Your task to perform on an android device: change the clock style Image 0: 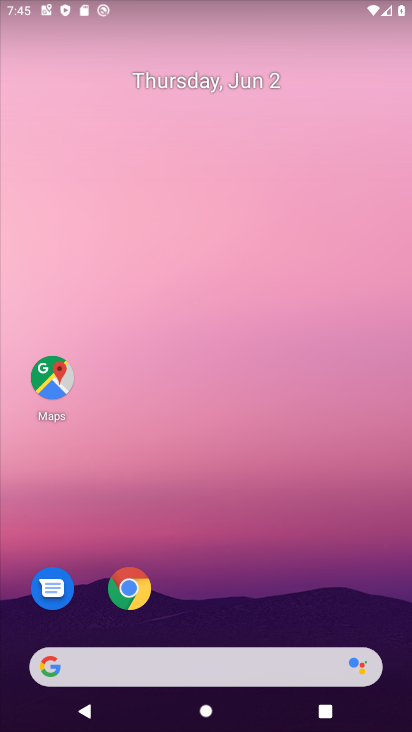
Step 0: click (197, 185)
Your task to perform on an android device: change the clock style Image 1: 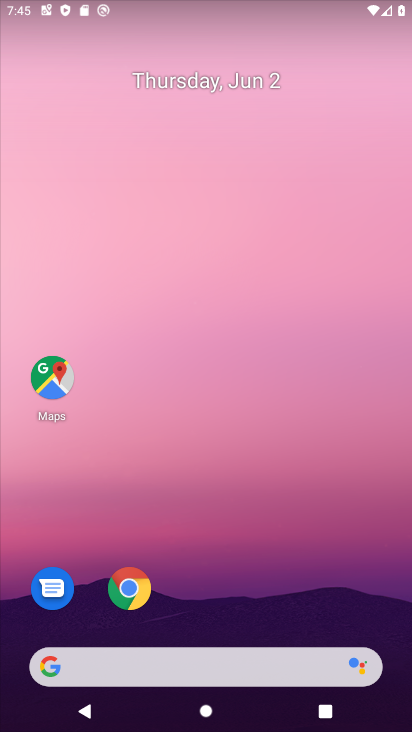
Step 1: drag from (218, 667) to (229, 248)
Your task to perform on an android device: change the clock style Image 2: 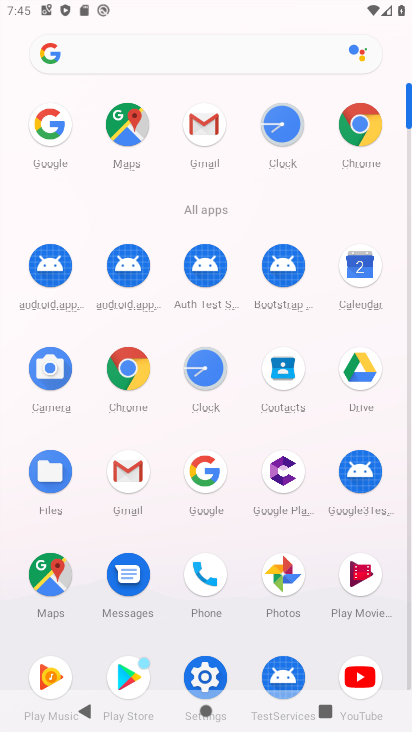
Step 2: click (217, 368)
Your task to perform on an android device: change the clock style Image 3: 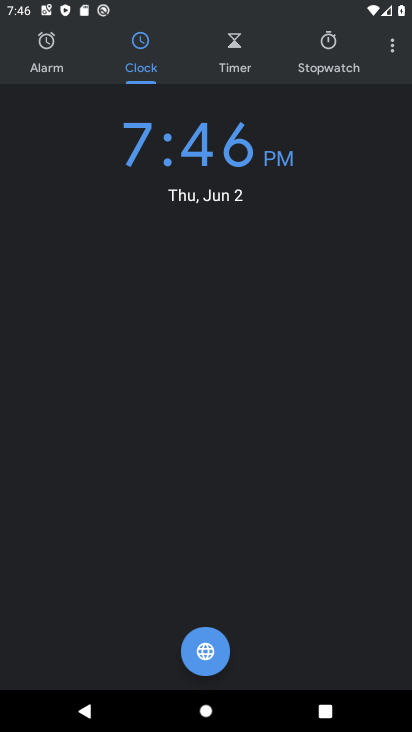
Step 3: click (394, 55)
Your task to perform on an android device: change the clock style Image 4: 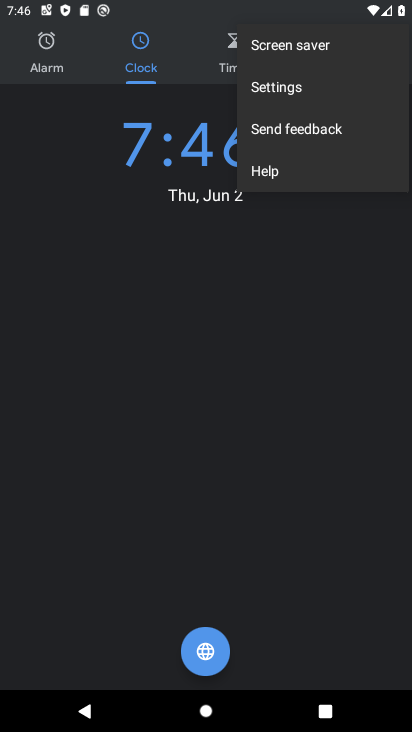
Step 4: click (279, 84)
Your task to perform on an android device: change the clock style Image 5: 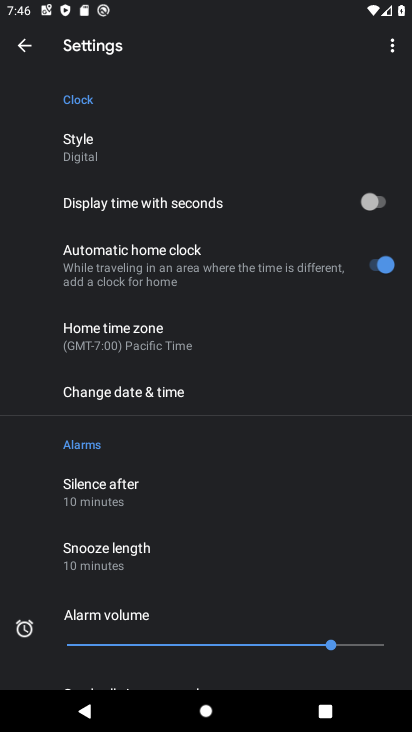
Step 5: click (129, 150)
Your task to perform on an android device: change the clock style Image 6: 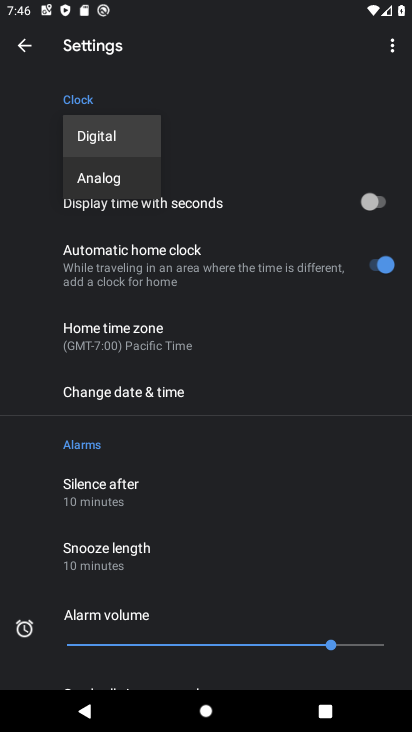
Step 6: click (132, 173)
Your task to perform on an android device: change the clock style Image 7: 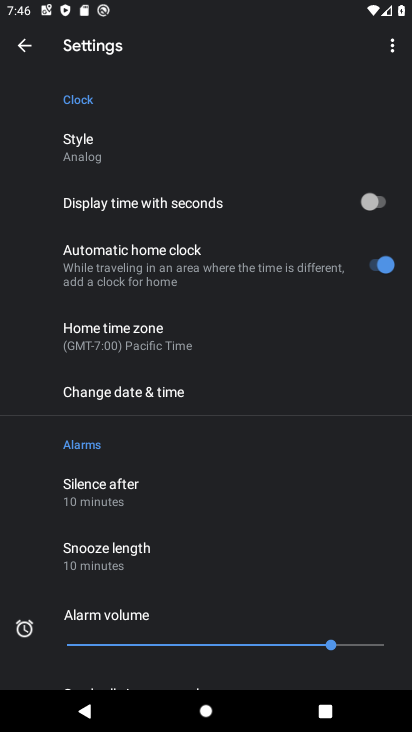
Step 7: task complete